Your task to perform on an android device: Set the phone to "Do not disturb". Image 0: 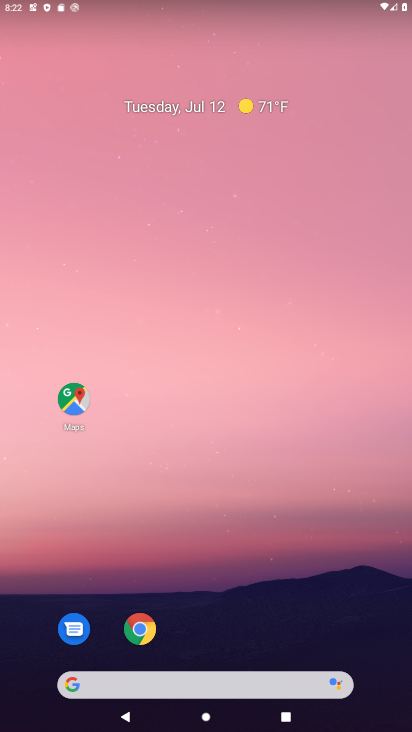
Step 0: drag from (375, 617) to (334, 115)
Your task to perform on an android device: Set the phone to "Do not disturb". Image 1: 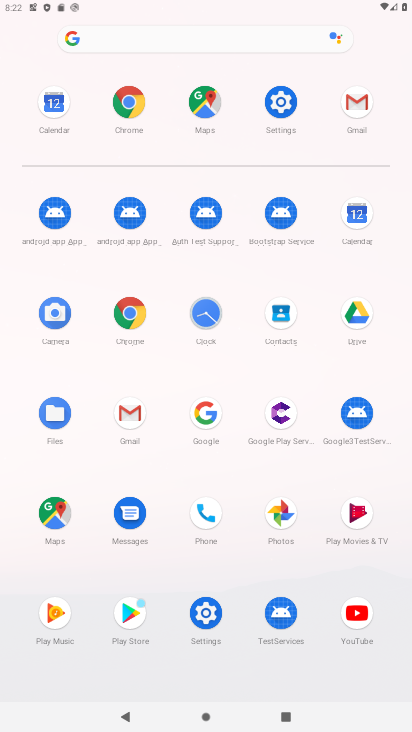
Step 1: click (280, 95)
Your task to perform on an android device: Set the phone to "Do not disturb". Image 2: 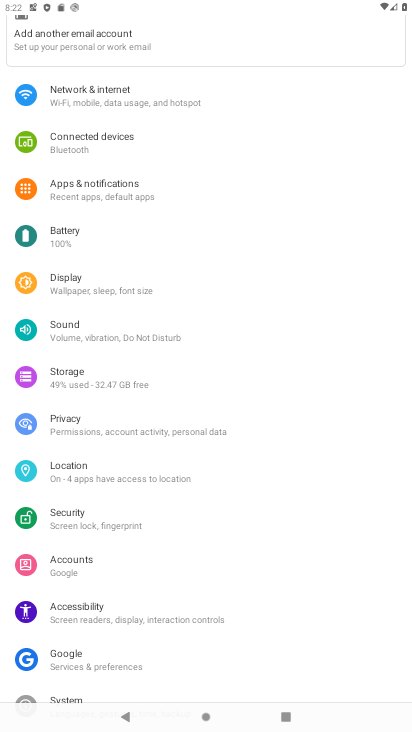
Step 2: click (55, 332)
Your task to perform on an android device: Set the phone to "Do not disturb". Image 3: 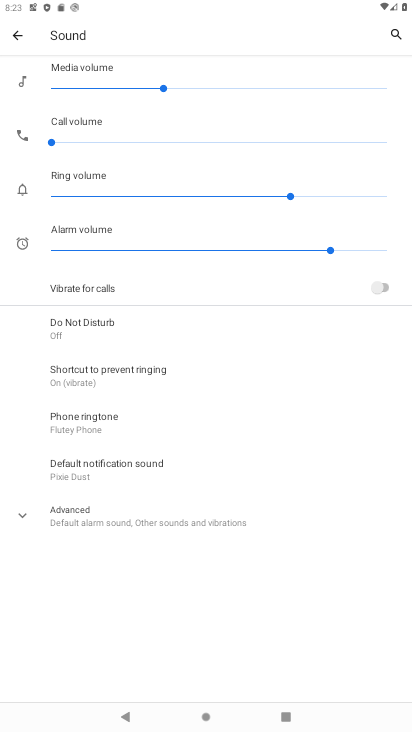
Step 3: click (63, 326)
Your task to perform on an android device: Set the phone to "Do not disturb". Image 4: 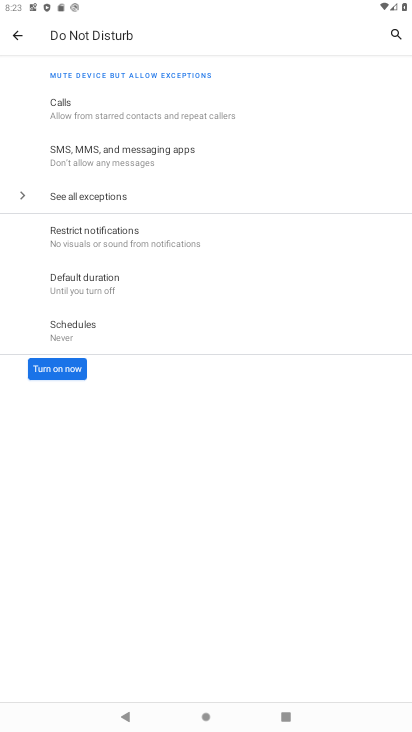
Step 4: click (59, 367)
Your task to perform on an android device: Set the phone to "Do not disturb". Image 5: 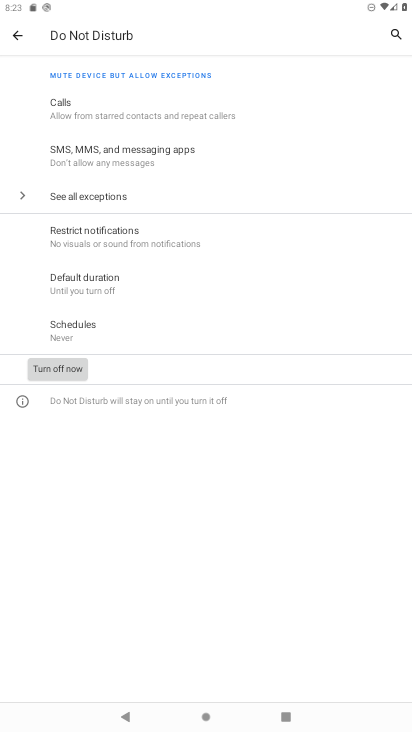
Step 5: task complete